Your task to perform on an android device: open app "Microsoft Outlook" Image 0: 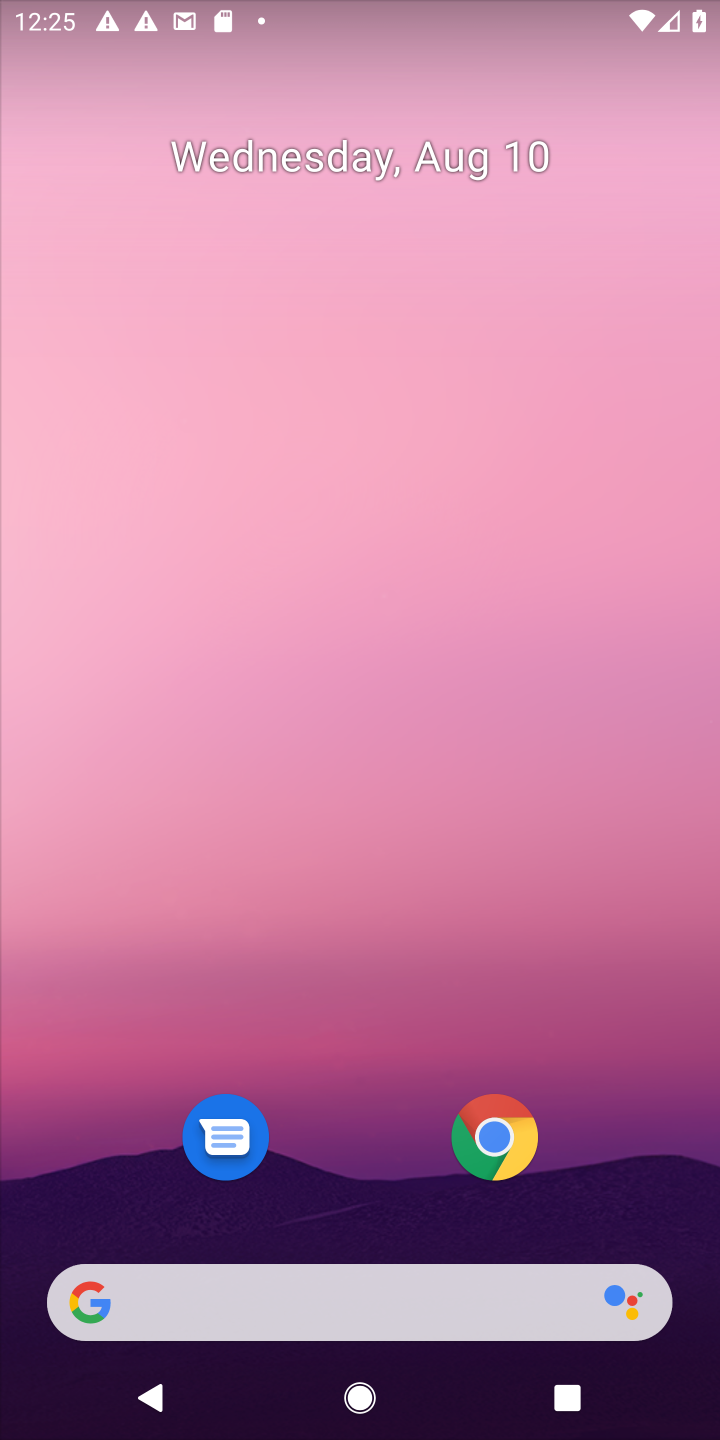
Step 0: press home button
Your task to perform on an android device: open app "Microsoft Outlook" Image 1: 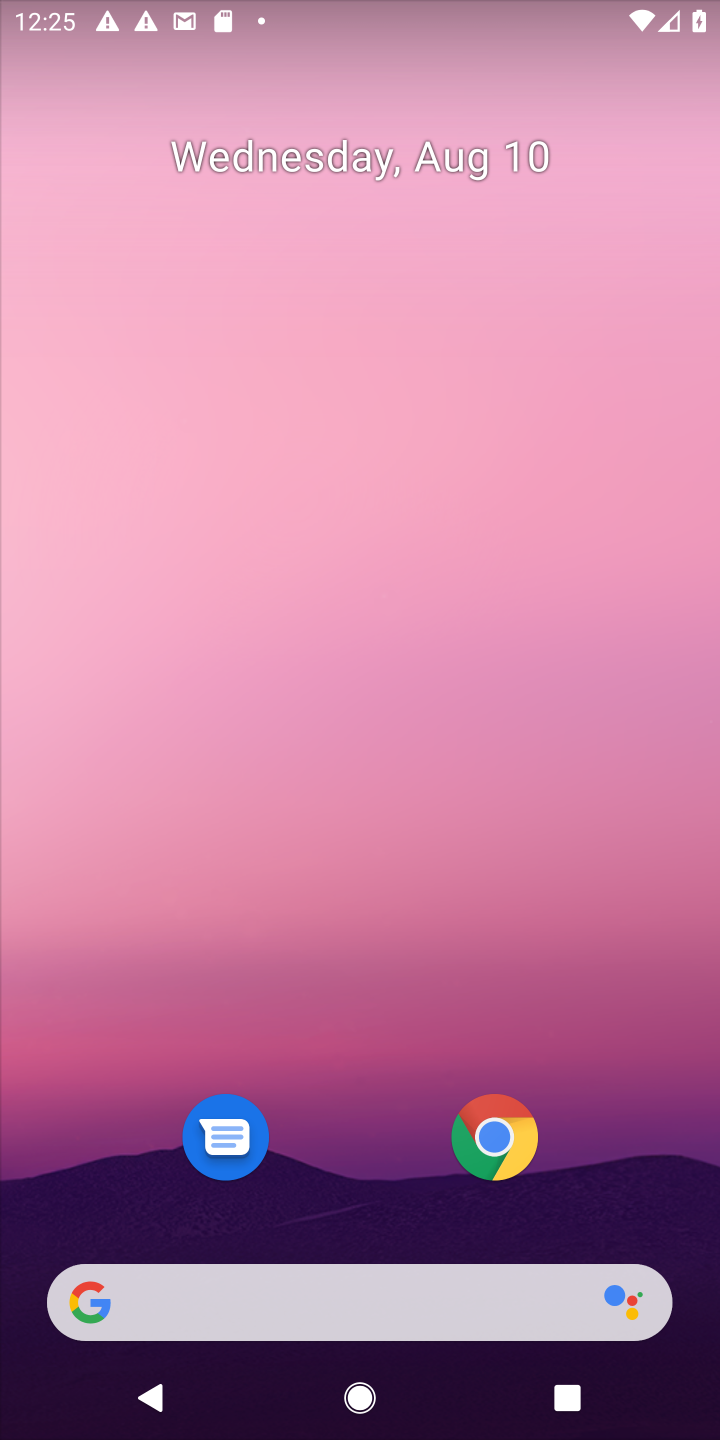
Step 1: drag from (367, 1195) to (236, 31)
Your task to perform on an android device: open app "Microsoft Outlook" Image 2: 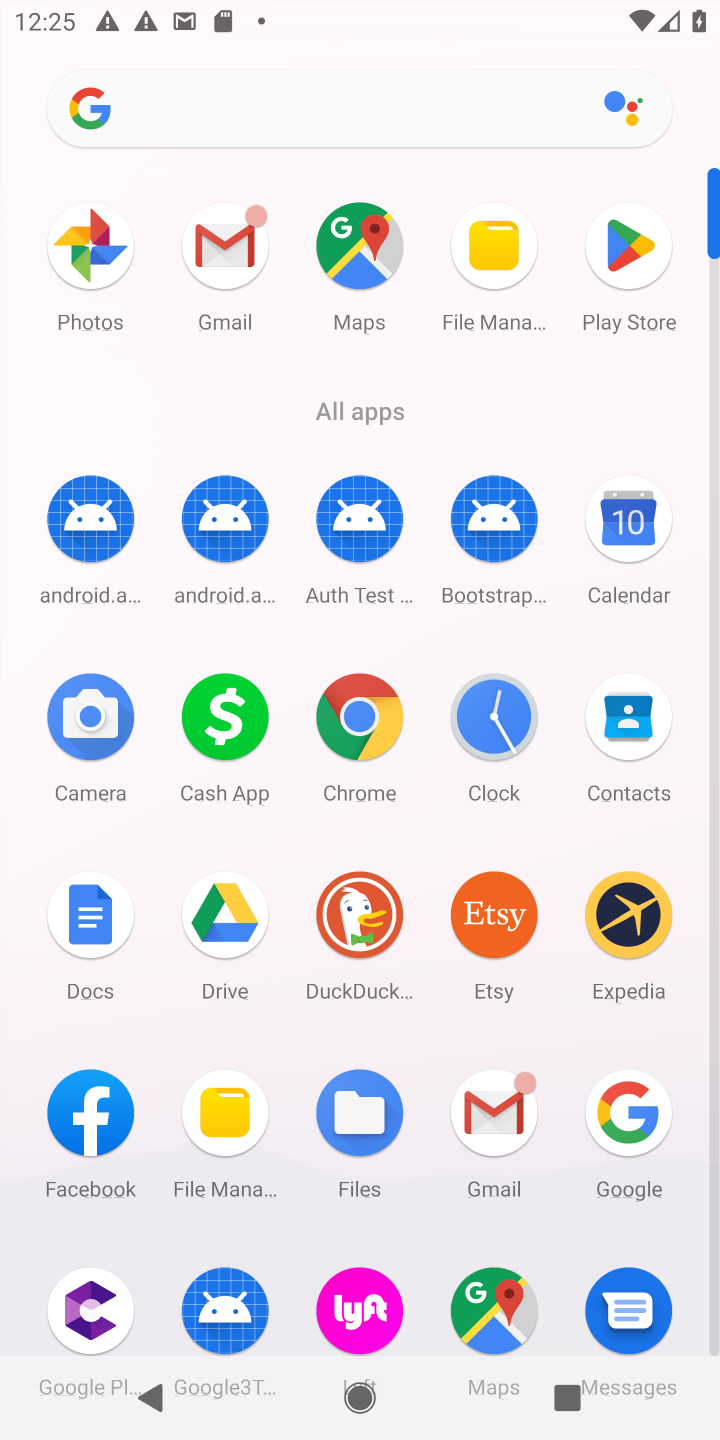
Step 2: drag from (432, 1169) to (290, 197)
Your task to perform on an android device: open app "Microsoft Outlook" Image 3: 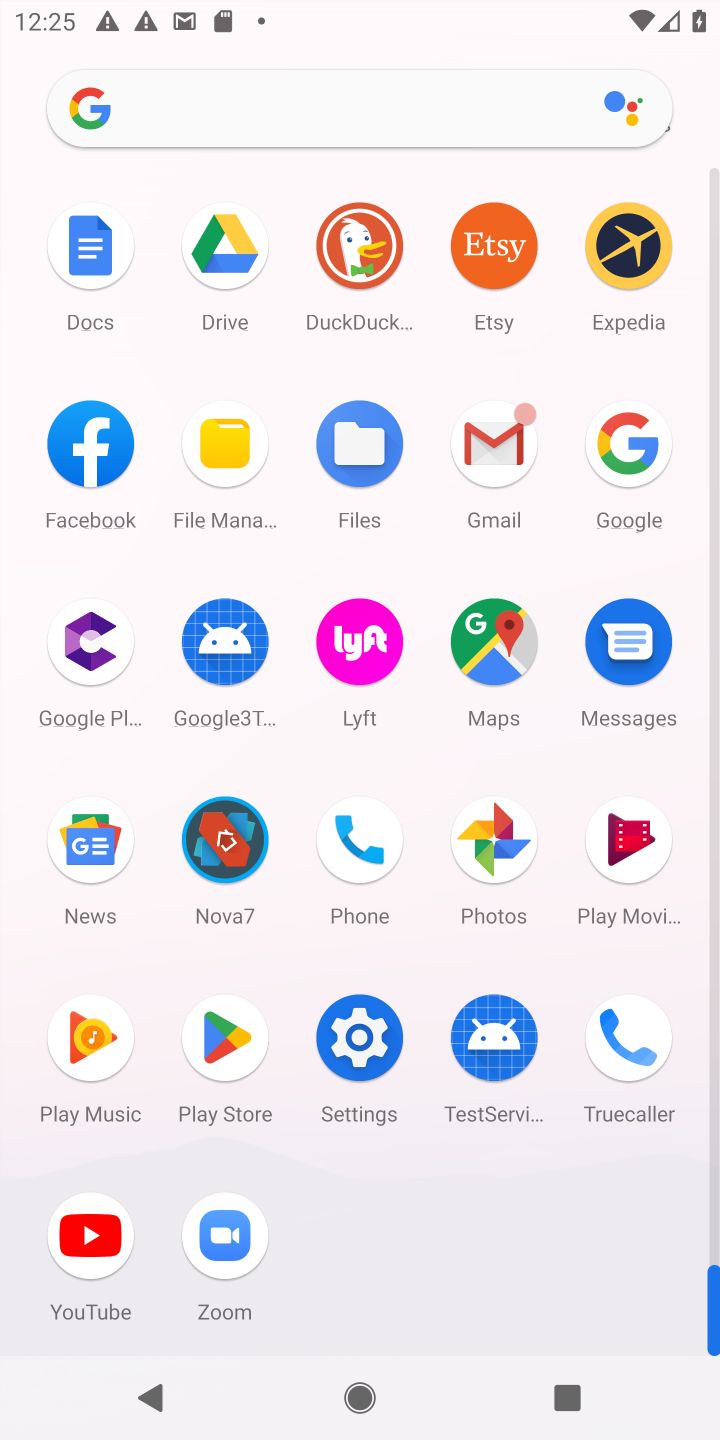
Step 3: click (217, 1028)
Your task to perform on an android device: open app "Microsoft Outlook" Image 4: 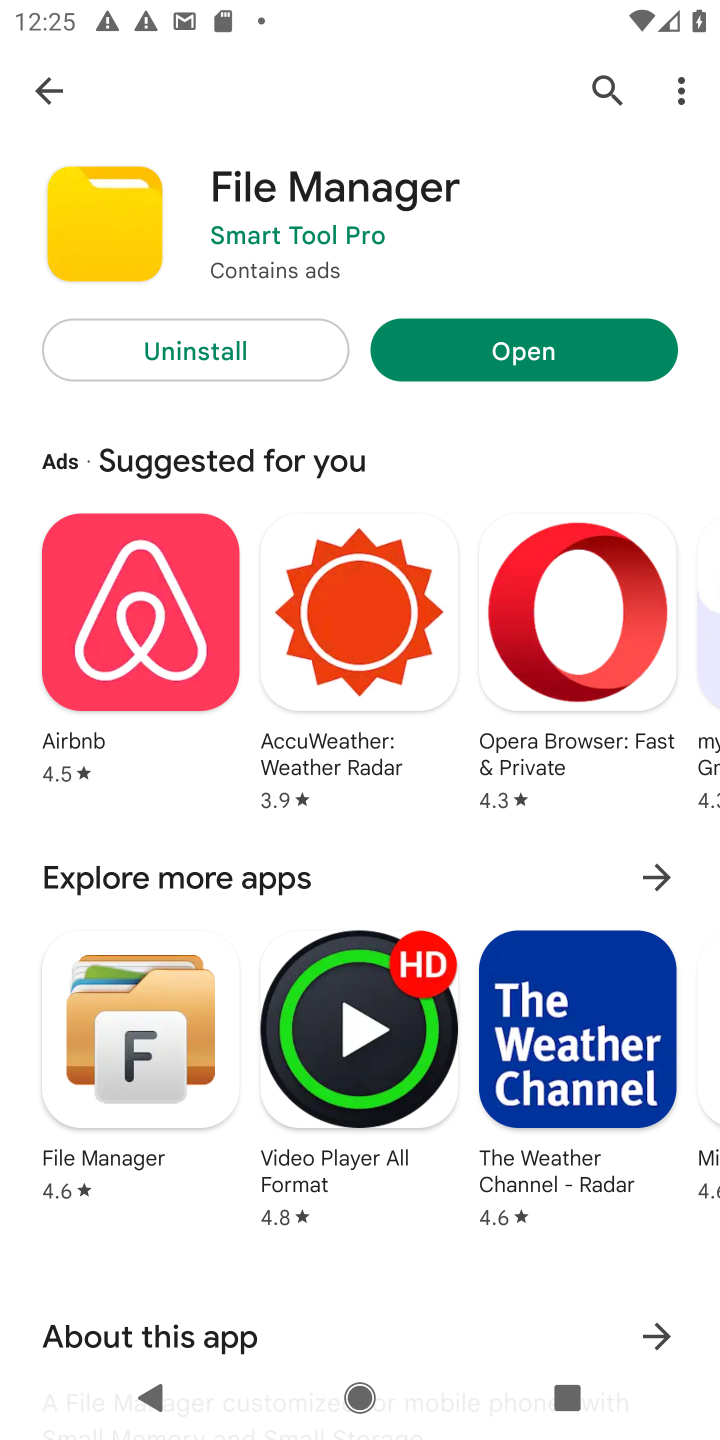
Step 4: click (599, 91)
Your task to perform on an android device: open app "Microsoft Outlook" Image 5: 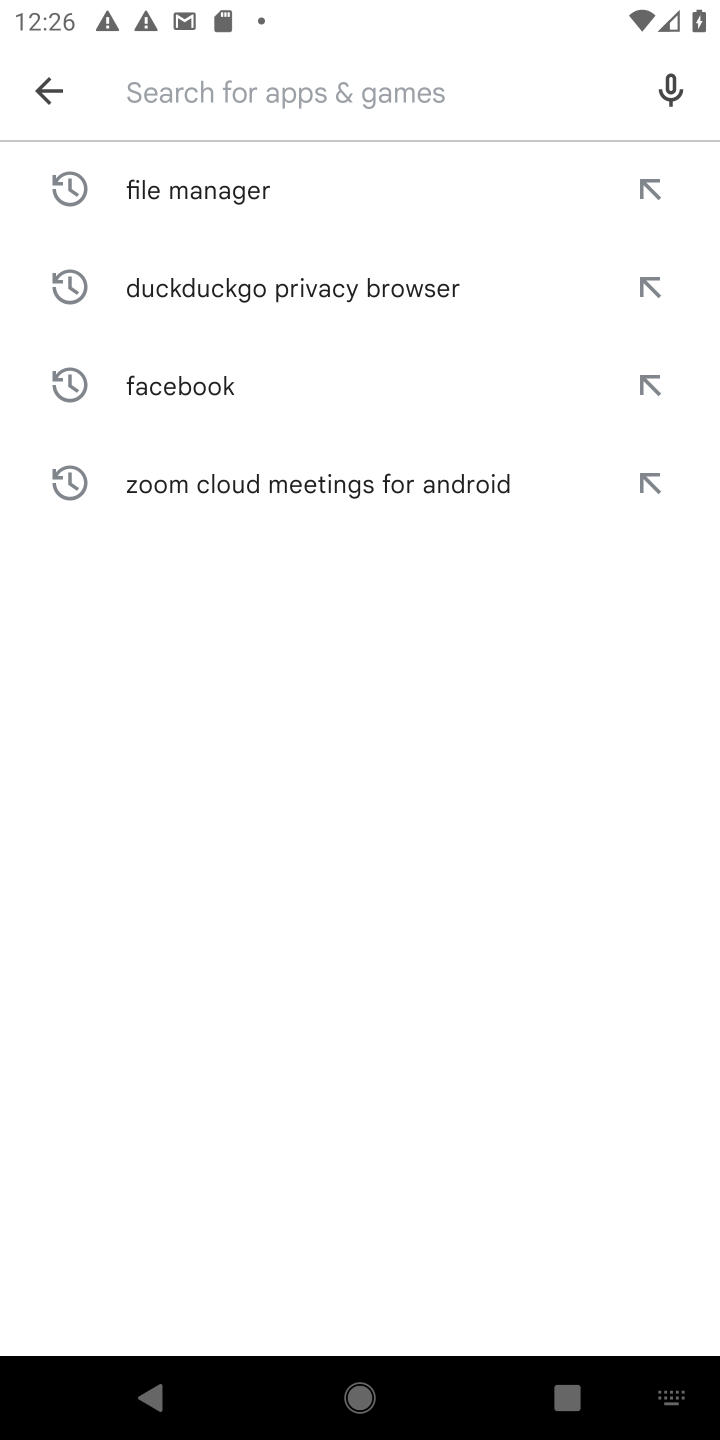
Step 5: type "Microsoft Outlook"
Your task to perform on an android device: open app "Microsoft Outlook" Image 6: 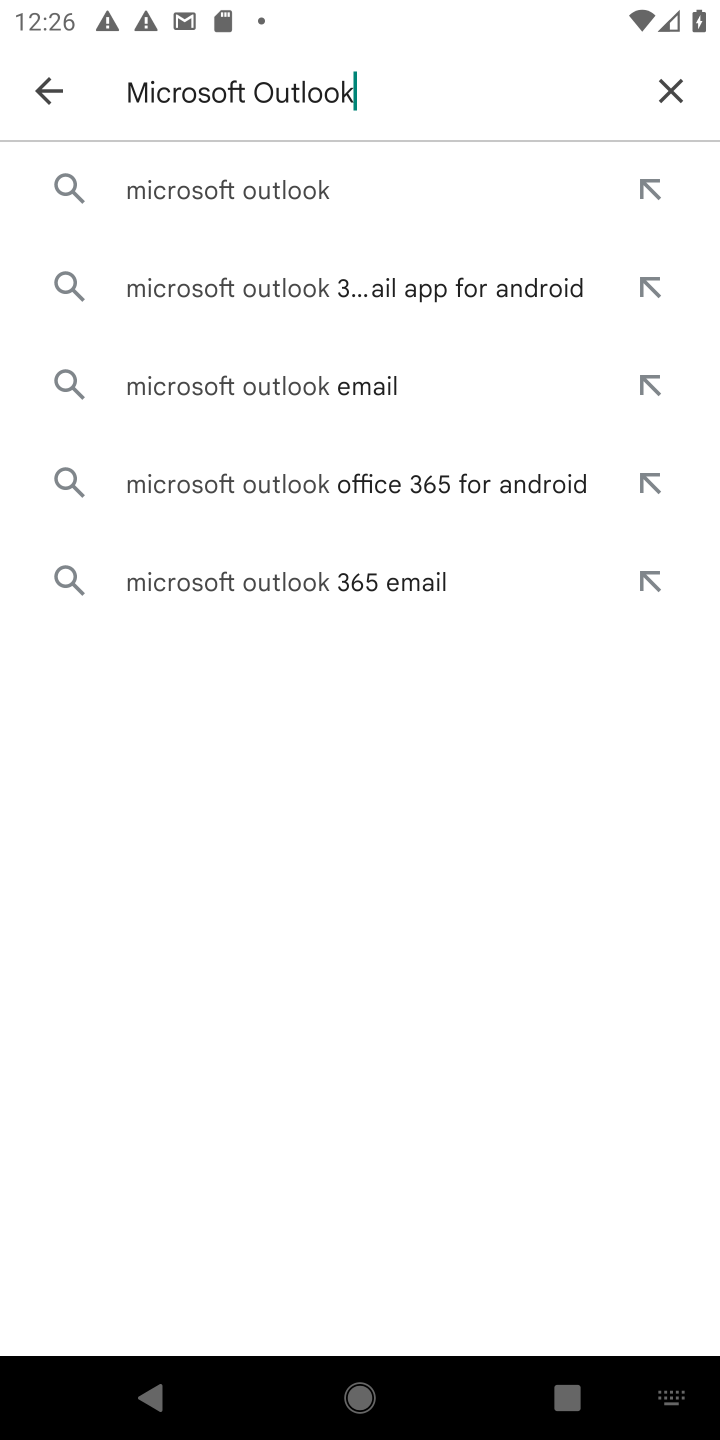
Step 6: click (331, 195)
Your task to perform on an android device: open app "Microsoft Outlook" Image 7: 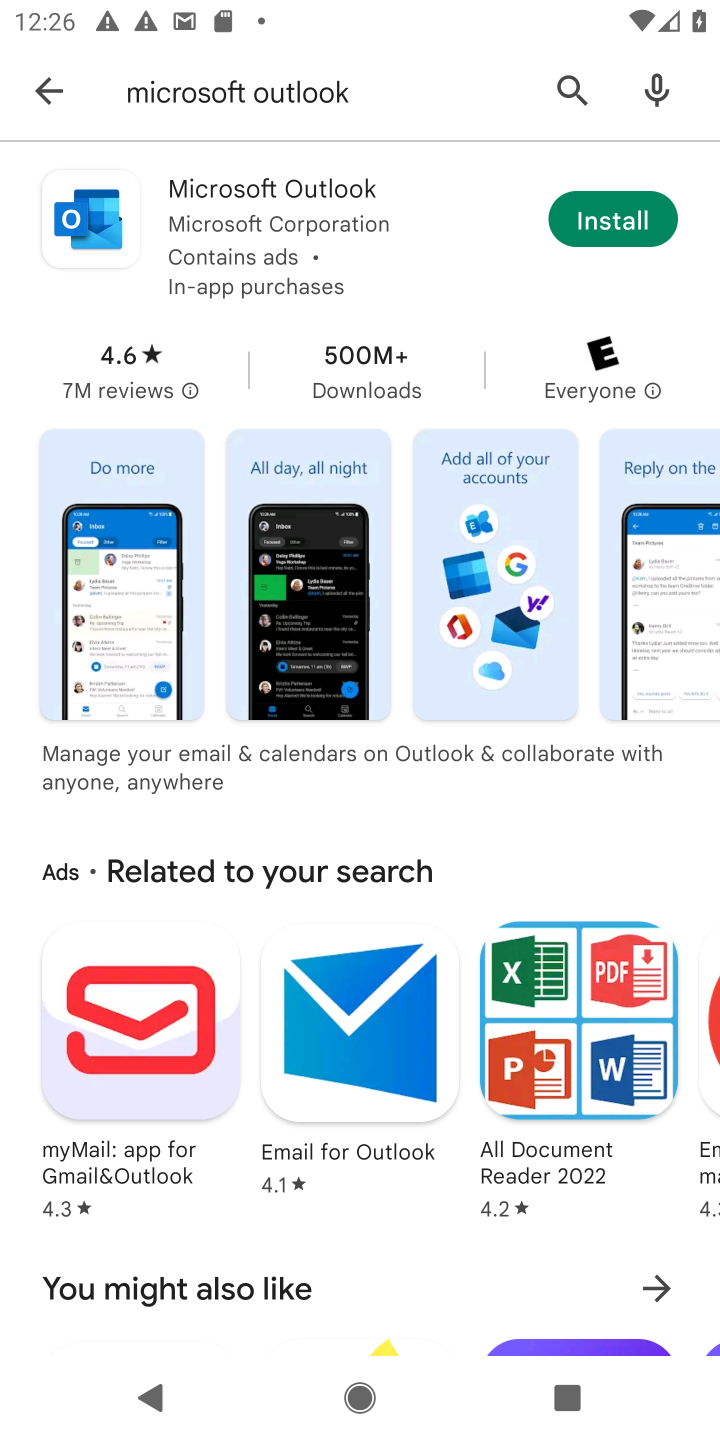
Step 7: task complete